Your task to perform on an android device: move an email to a new category in the gmail app Image 0: 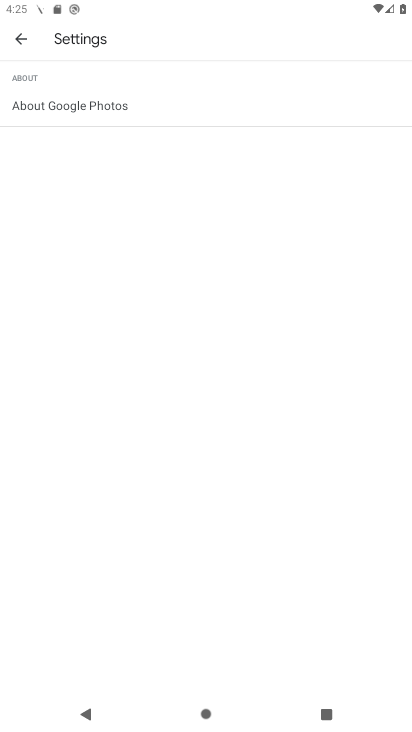
Step 0: press home button
Your task to perform on an android device: move an email to a new category in the gmail app Image 1: 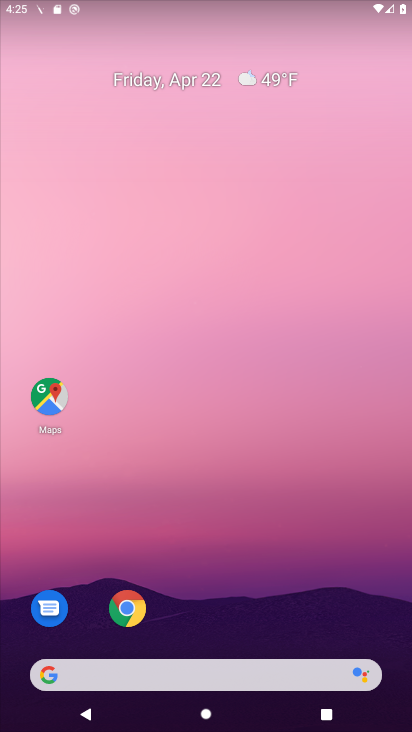
Step 1: drag from (197, 652) to (266, 198)
Your task to perform on an android device: move an email to a new category in the gmail app Image 2: 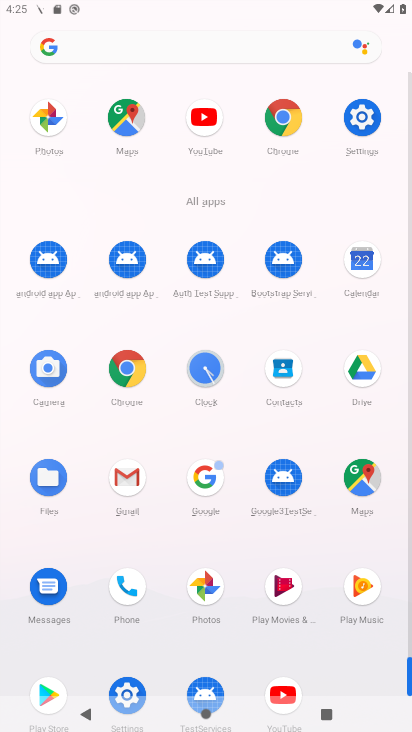
Step 2: click (126, 495)
Your task to perform on an android device: move an email to a new category in the gmail app Image 3: 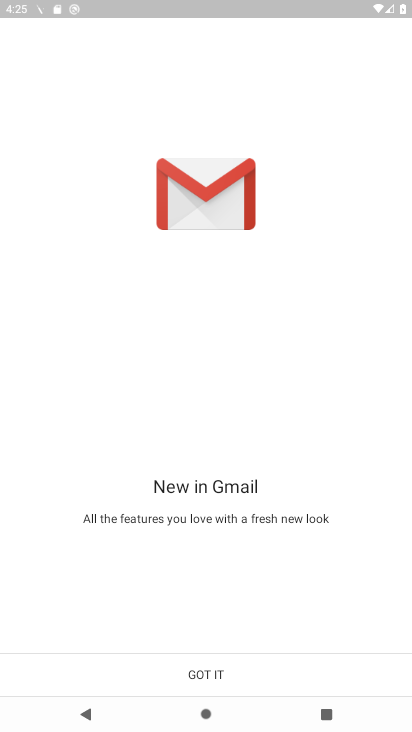
Step 3: click (240, 670)
Your task to perform on an android device: move an email to a new category in the gmail app Image 4: 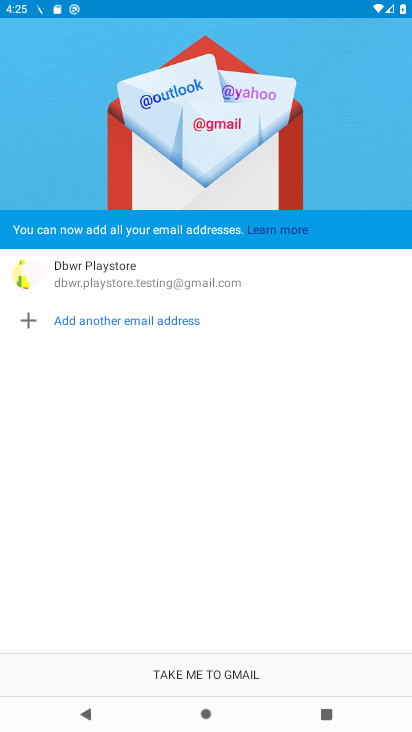
Step 4: click (240, 670)
Your task to perform on an android device: move an email to a new category in the gmail app Image 5: 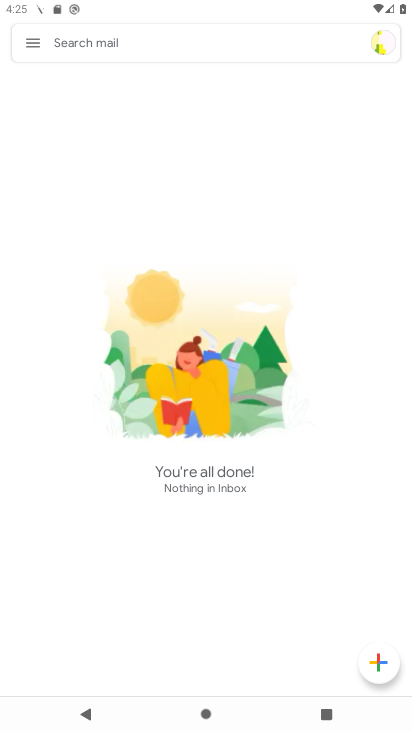
Step 5: click (39, 49)
Your task to perform on an android device: move an email to a new category in the gmail app Image 6: 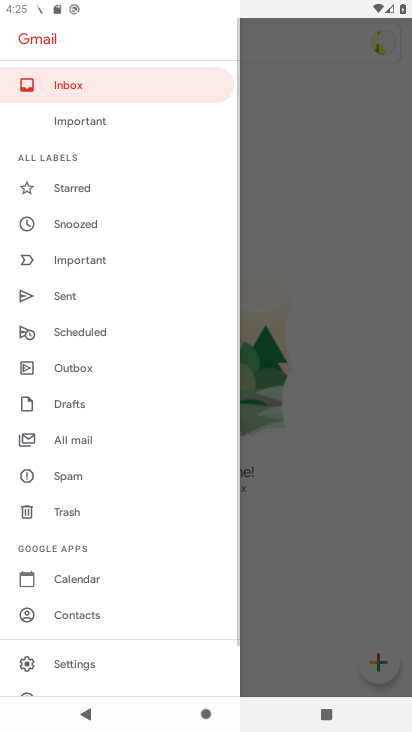
Step 6: drag from (82, 548) to (139, 181)
Your task to perform on an android device: move an email to a new category in the gmail app Image 7: 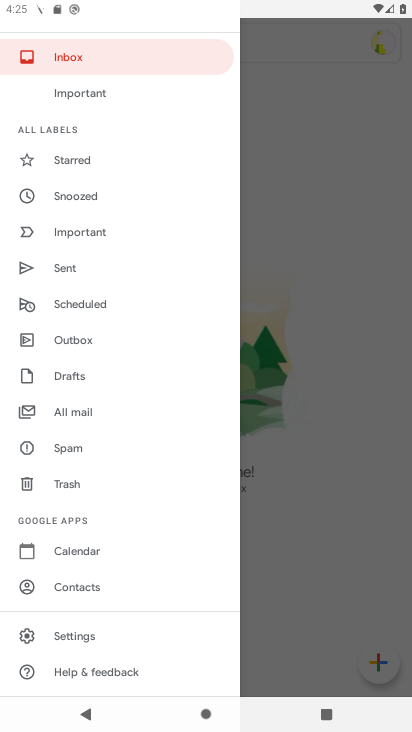
Step 7: click (98, 636)
Your task to perform on an android device: move an email to a new category in the gmail app Image 8: 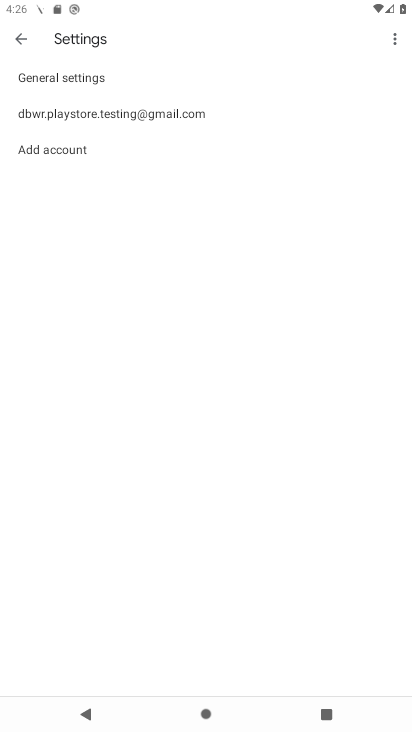
Step 8: click (28, 35)
Your task to perform on an android device: move an email to a new category in the gmail app Image 9: 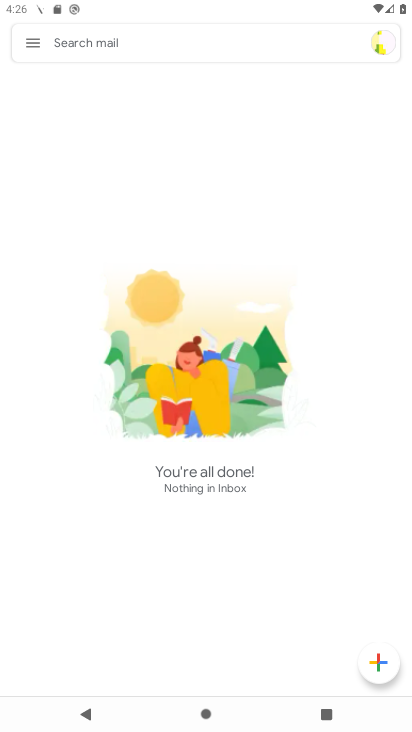
Step 9: click (40, 30)
Your task to perform on an android device: move an email to a new category in the gmail app Image 10: 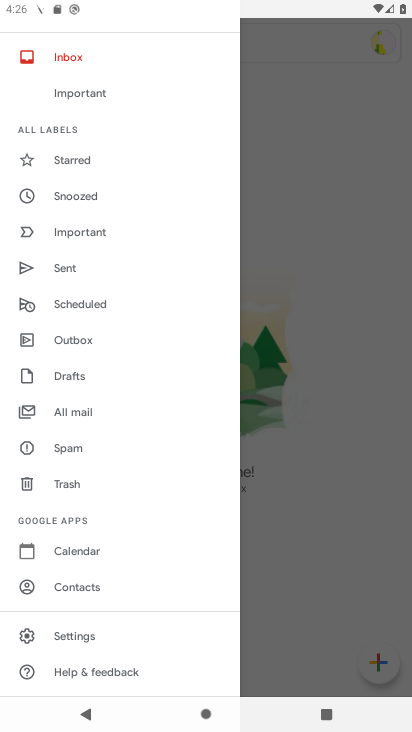
Step 10: click (87, 422)
Your task to perform on an android device: move an email to a new category in the gmail app Image 11: 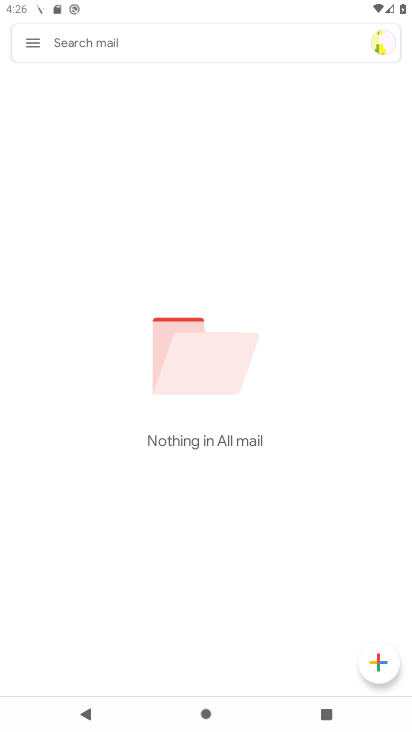
Step 11: task complete